Your task to perform on an android device: Is it going to rain today? Image 0: 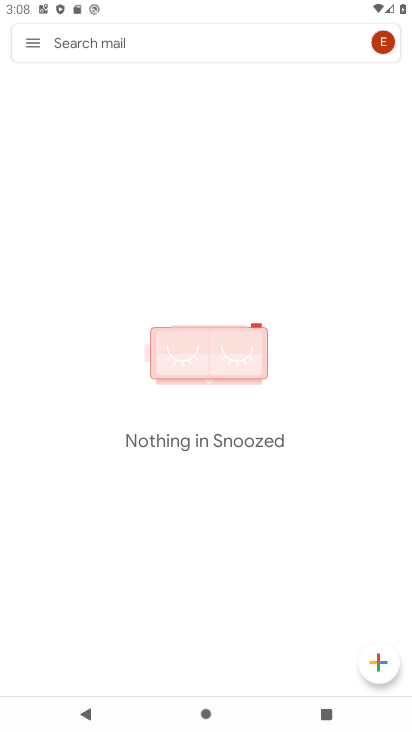
Step 0: press home button
Your task to perform on an android device: Is it going to rain today? Image 1: 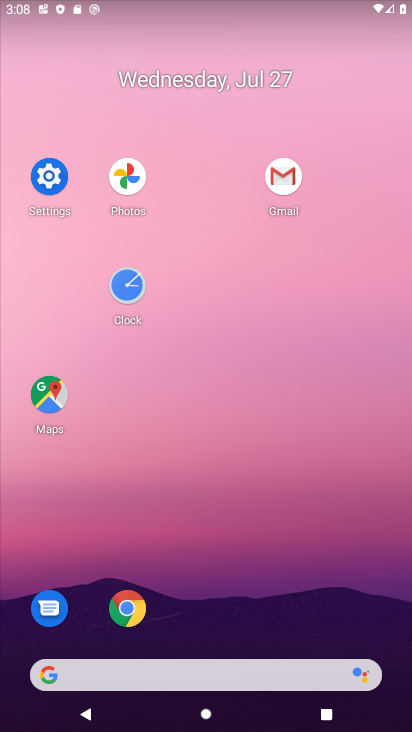
Step 1: drag from (196, 536) to (147, 81)
Your task to perform on an android device: Is it going to rain today? Image 2: 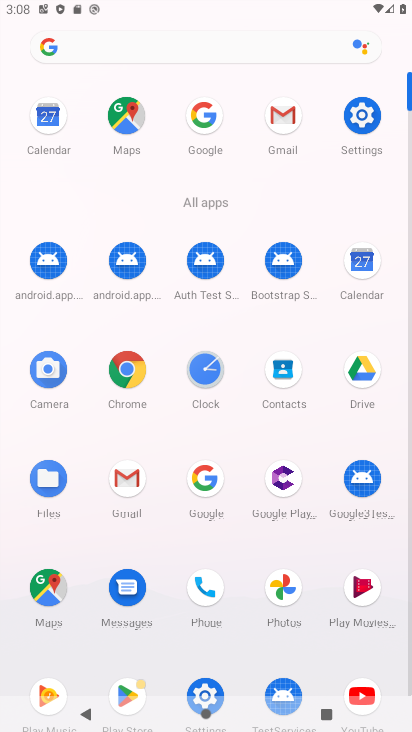
Step 2: drag from (203, 480) to (37, 253)
Your task to perform on an android device: Is it going to rain today? Image 3: 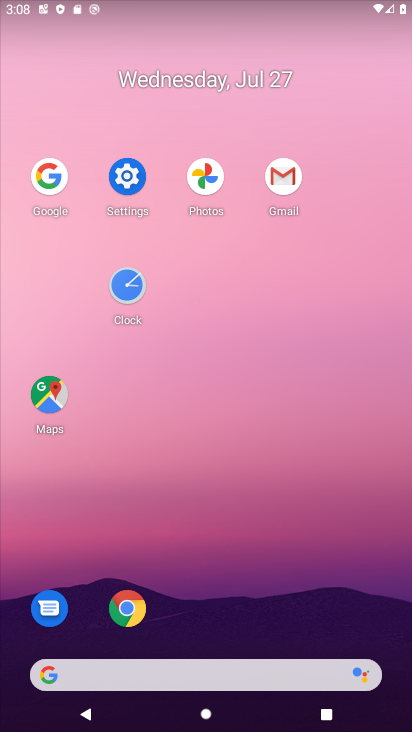
Step 3: click (52, 173)
Your task to perform on an android device: Is it going to rain today? Image 4: 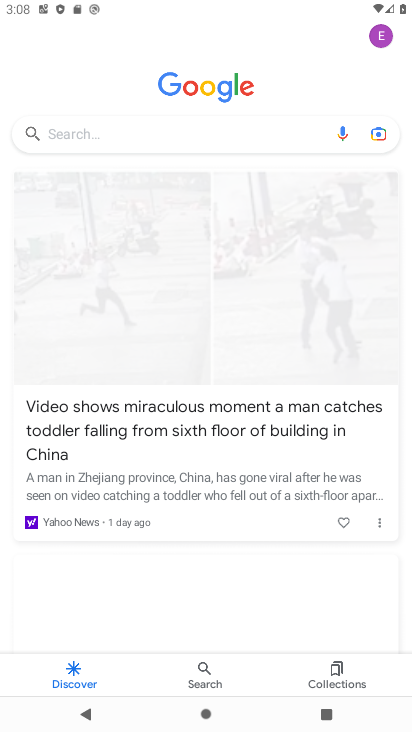
Step 4: click (206, 139)
Your task to perform on an android device: Is it going to rain today? Image 5: 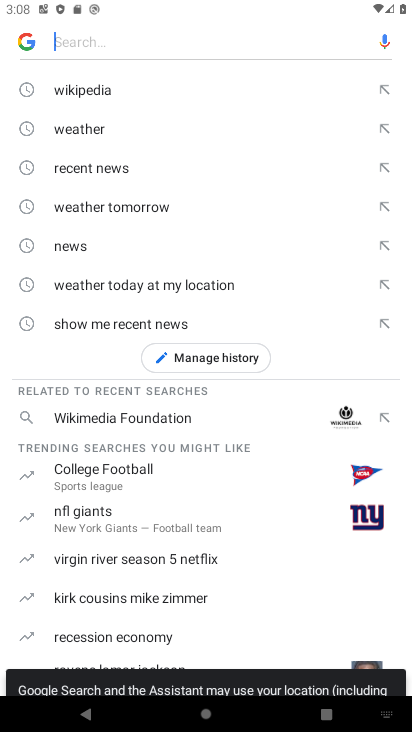
Step 5: click (128, 123)
Your task to perform on an android device: Is it going to rain today? Image 6: 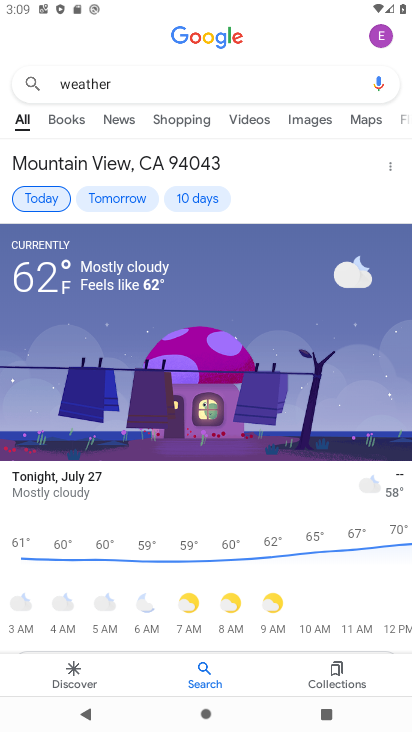
Step 6: task complete